Your task to perform on an android device: check data usage Image 0: 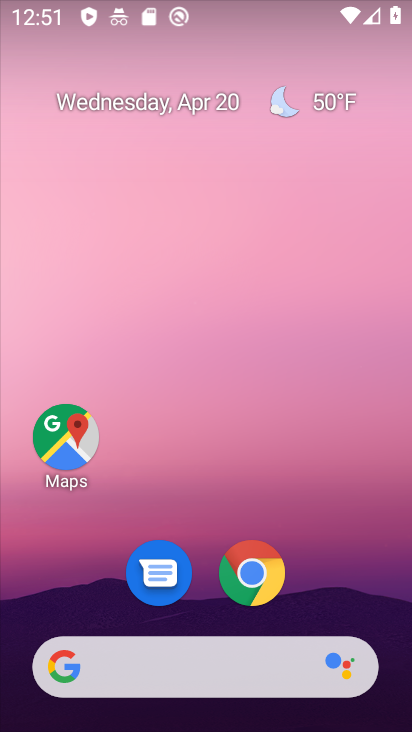
Step 0: drag from (383, 516) to (392, 16)
Your task to perform on an android device: check data usage Image 1: 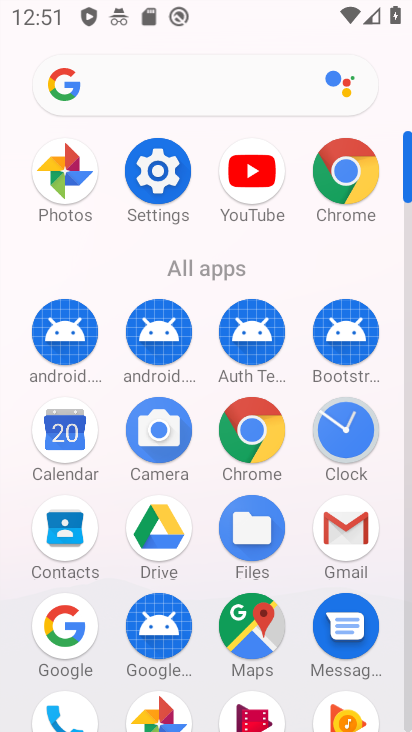
Step 1: click (155, 175)
Your task to perform on an android device: check data usage Image 2: 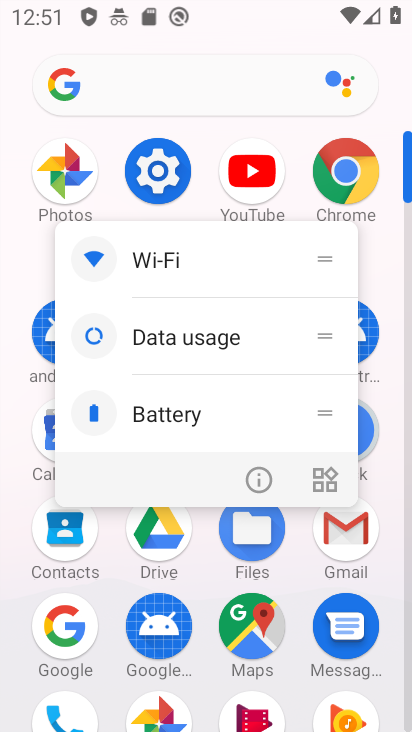
Step 2: click (156, 340)
Your task to perform on an android device: check data usage Image 3: 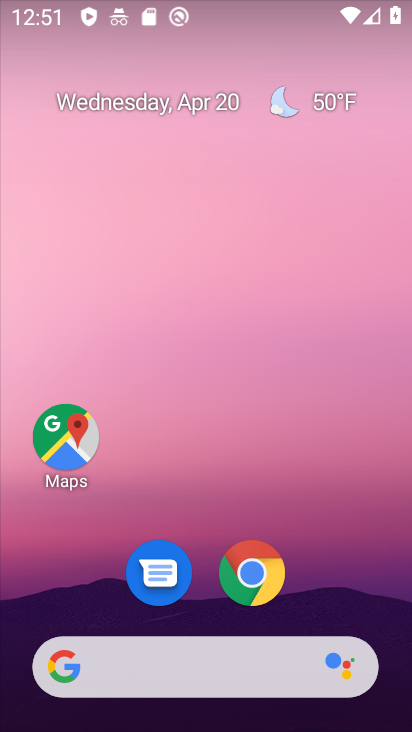
Step 3: drag from (352, 576) to (298, 0)
Your task to perform on an android device: check data usage Image 4: 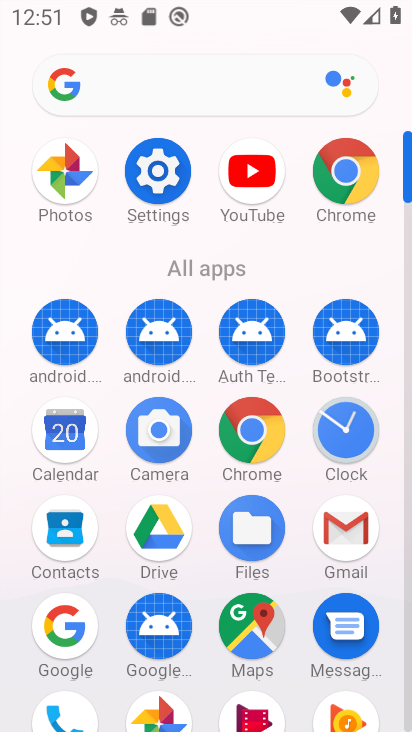
Step 4: click (160, 195)
Your task to perform on an android device: check data usage Image 5: 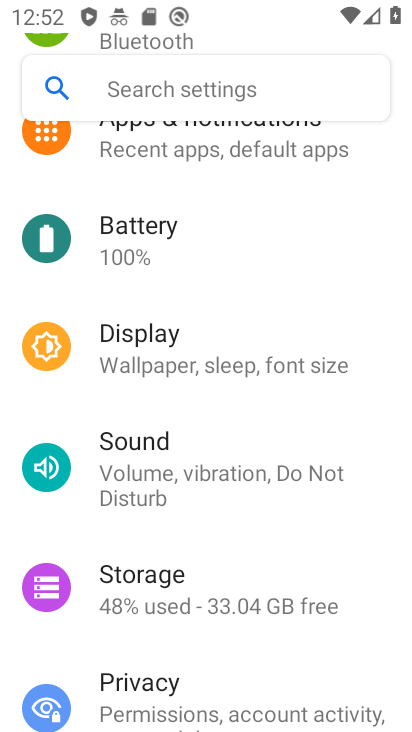
Step 5: drag from (338, 240) to (353, 635)
Your task to perform on an android device: check data usage Image 6: 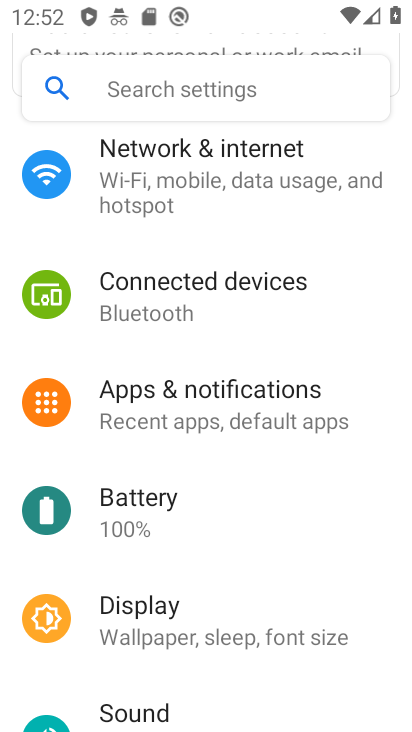
Step 6: click (173, 182)
Your task to perform on an android device: check data usage Image 7: 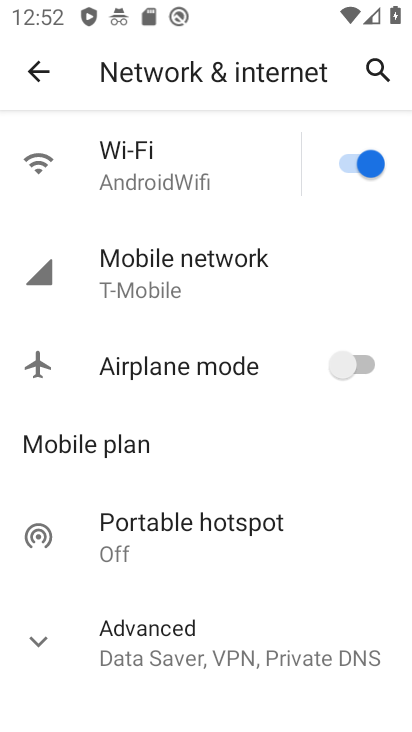
Step 7: drag from (164, 495) to (178, 243)
Your task to perform on an android device: check data usage Image 8: 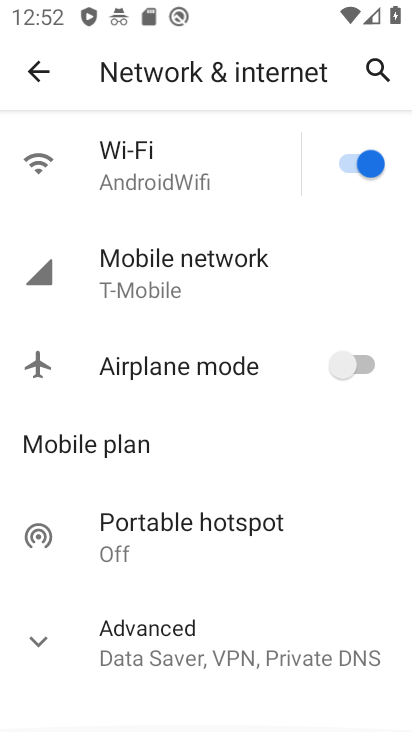
Step 8: click (167, 265)
Your task to perform on an android device: check data usage Image 9: 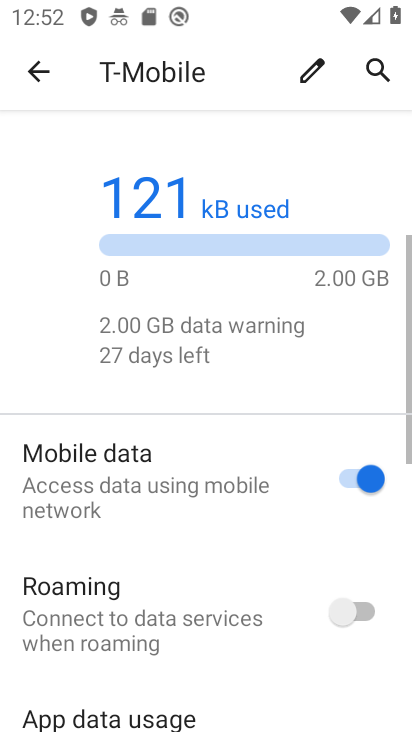
Step 9: drag from (165, 521) to (184, 153)
Your task to perform on an android device: check data usage Image 10: 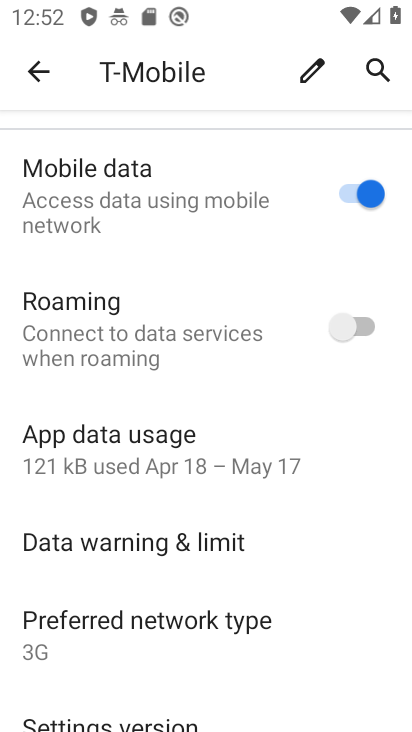
Step 10: drag from (148, 515) to (157, 223)
Your task to perform on an android device: check data usage Image 11: 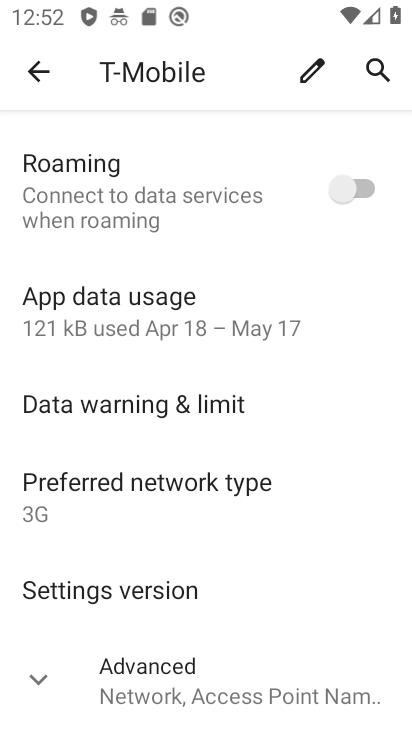
Step 11: click (115, 318)
Your task to perform on an android device: check data usage Image 12: 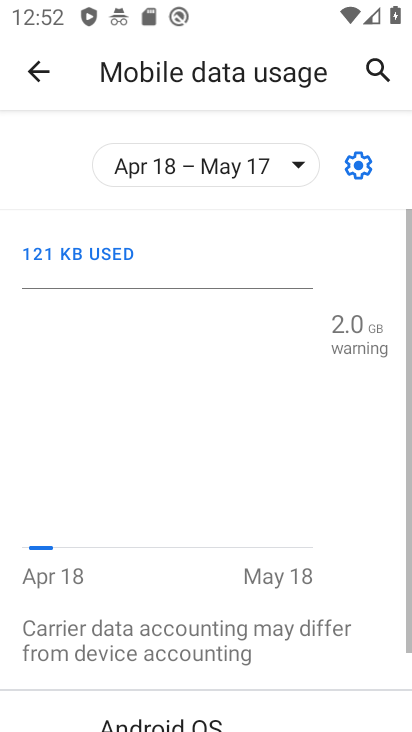
Step 12: task complete